Your task to perform on an android device: open app "File Manager" Image 0: 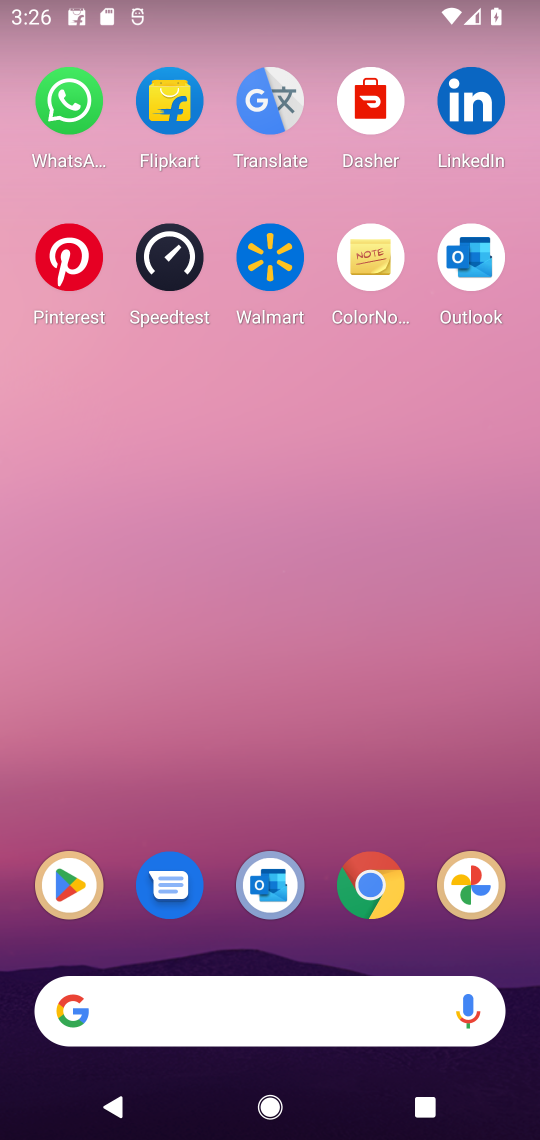
Step 0: click (76, 883)
Your task to perform on an android device: open app "File Manager" Image 1: 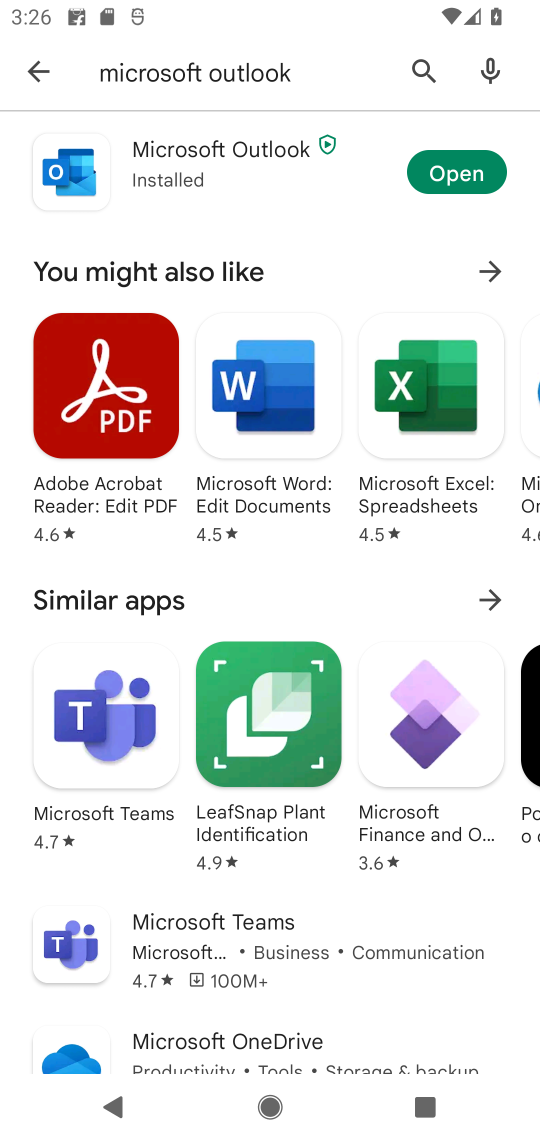
Step 1: click (420, 63)
Your task to perform on an android device: open app "File Manager" Image 2: 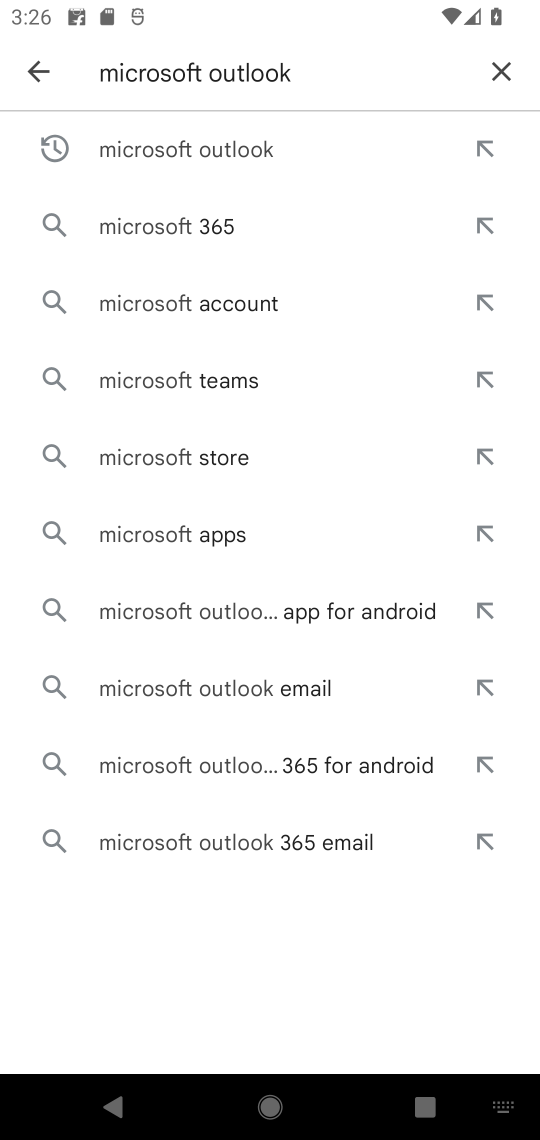
Step 2: click (500, 72)
Your task to perform on an android device: open app "File Manager" Image 3: 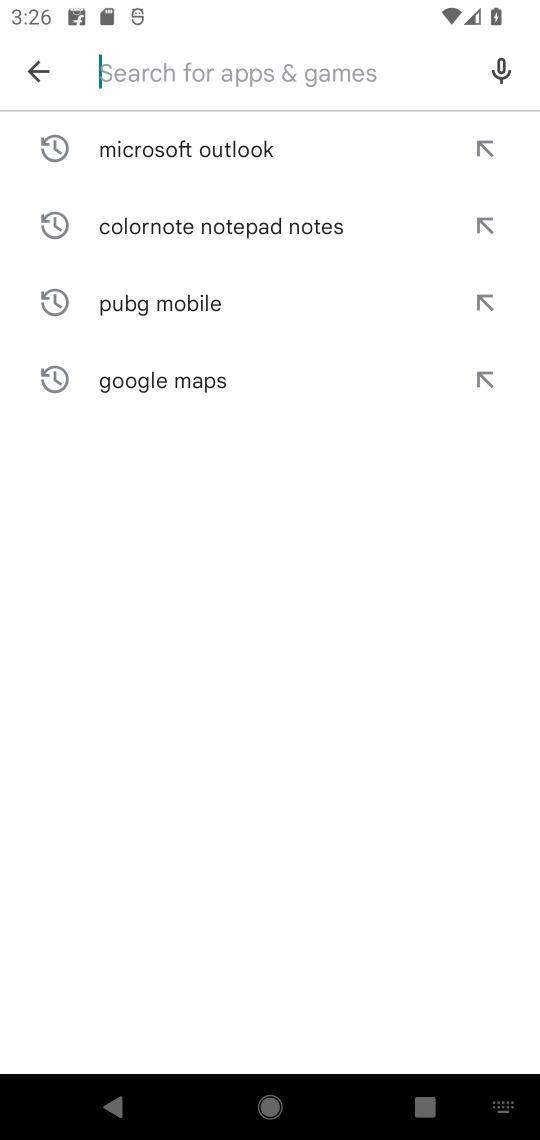
Step 3: click (285, 78)
Your task to perform on an android device: open app "File Manager" Image 4: 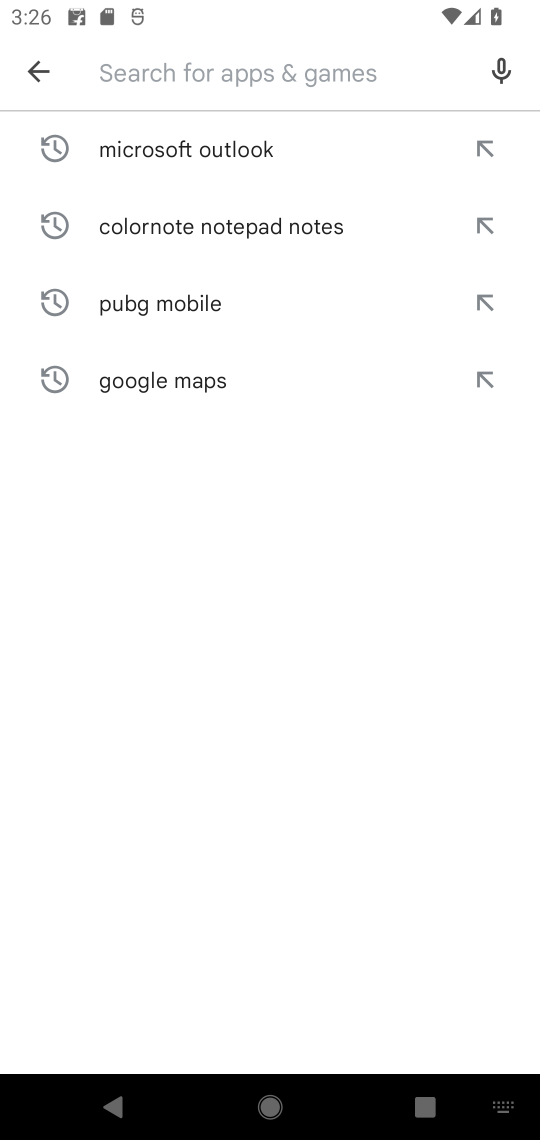
Step 4: type "File Manager"
Your task to perform on an android device: open app "File Manager" Image 5: 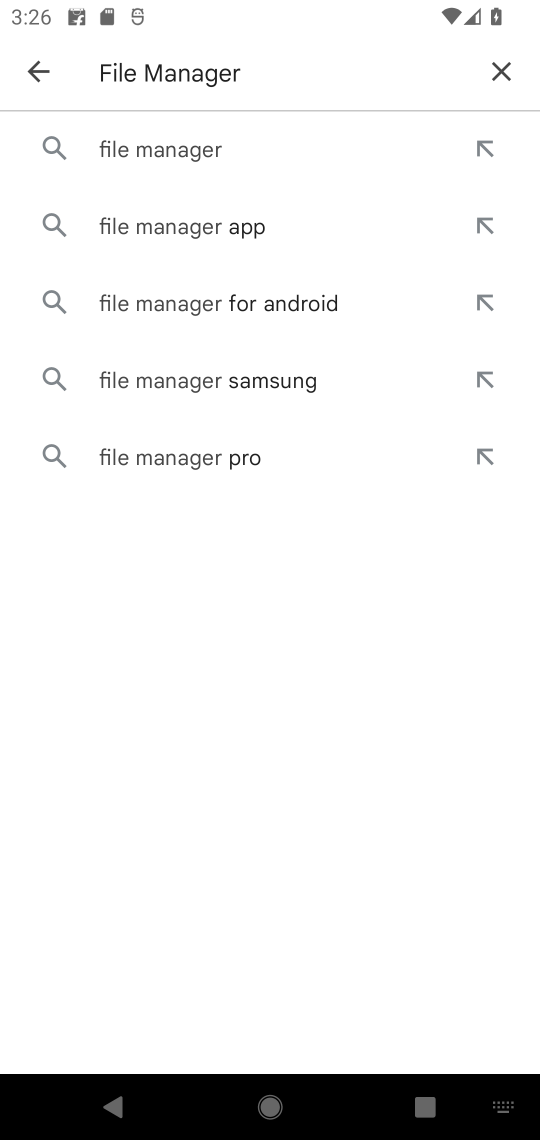
Step 5: click (105, 142)
Your task to perform on an android device: open app "File Manager" Image 6: 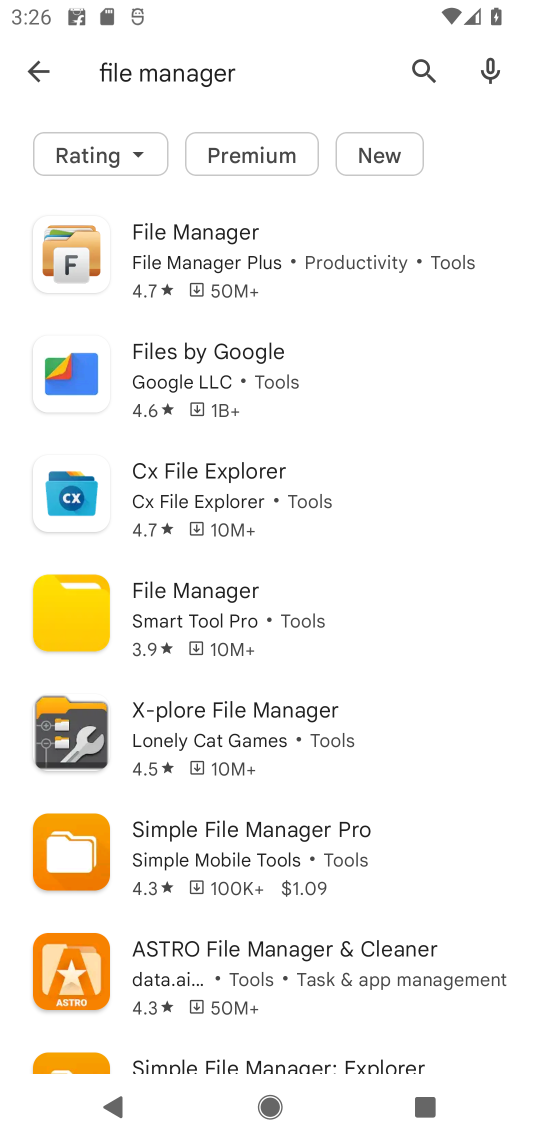
Step 6: task complete